Your task to perform on an android device: check out phone information Image 0: 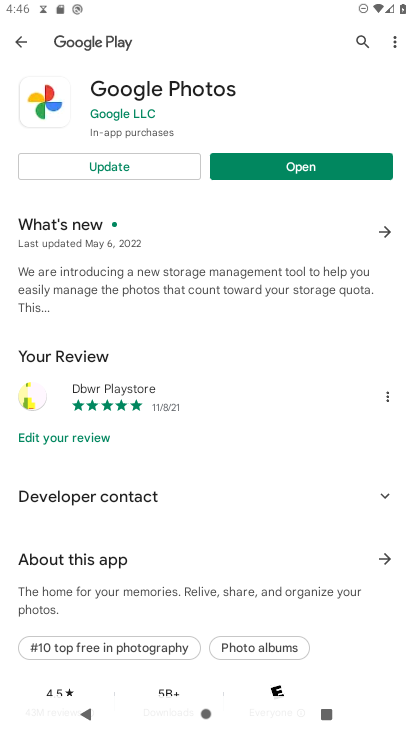
Step 0: press home button
Your task to perform on an android device: check out phone information Image 1: 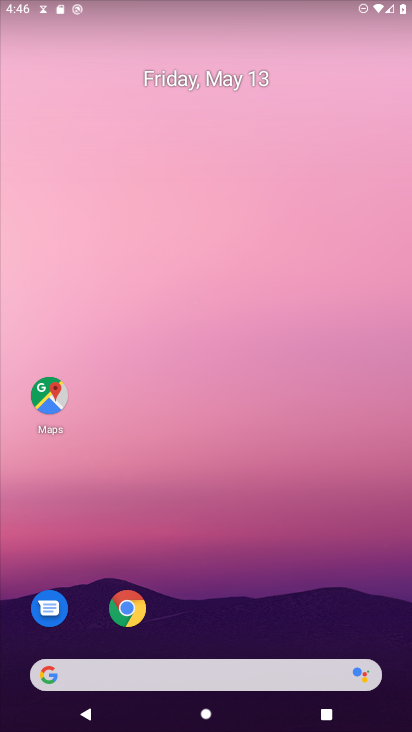
Step 1: drag from (240, 665) to (177, 0)
Your task to perform on an android device: check out phone information Image 2: 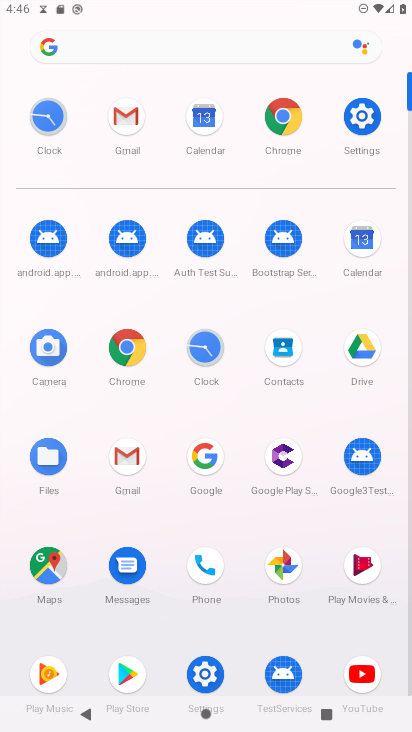
Step 2: click (215, 678)
Your task to perform on an android device: check out phone information Image 3: 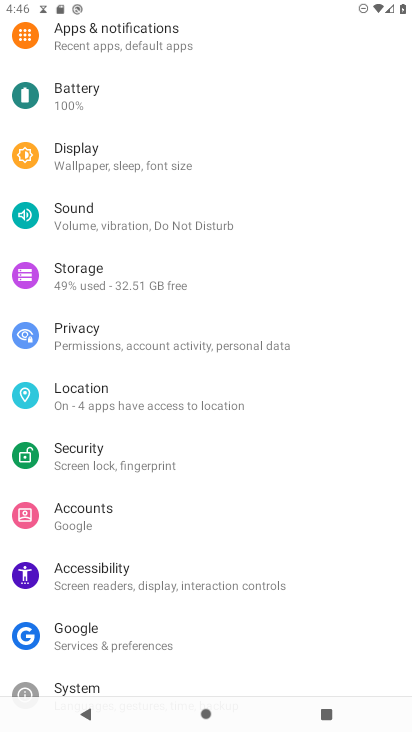
Step 3: drag from (265, 667) to (281, 156)
Your task to perform on an android device: check out phone information Image 4: 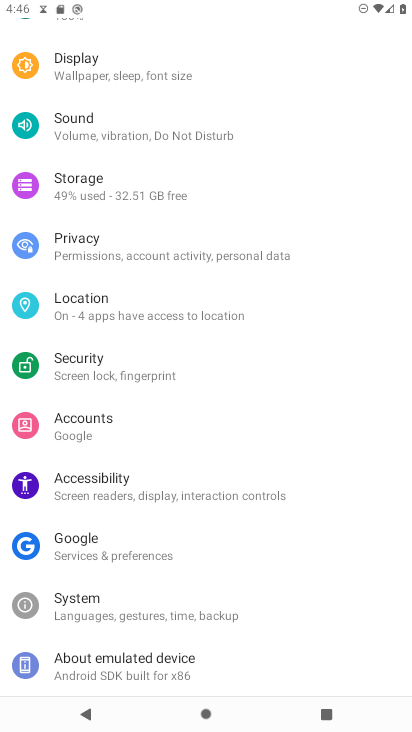
Step 4: click (217, 679)
Your task to perform on an android device: check out phone information Image 5: 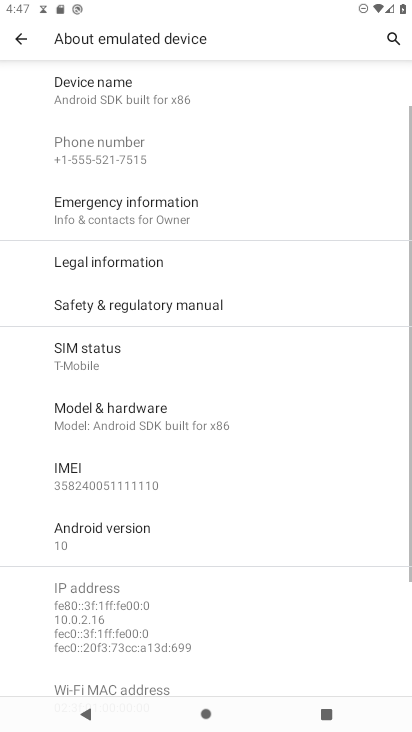
Step 5: task complete